Your task to perform on an android device: Is it going to rain this weekend? Image 0: 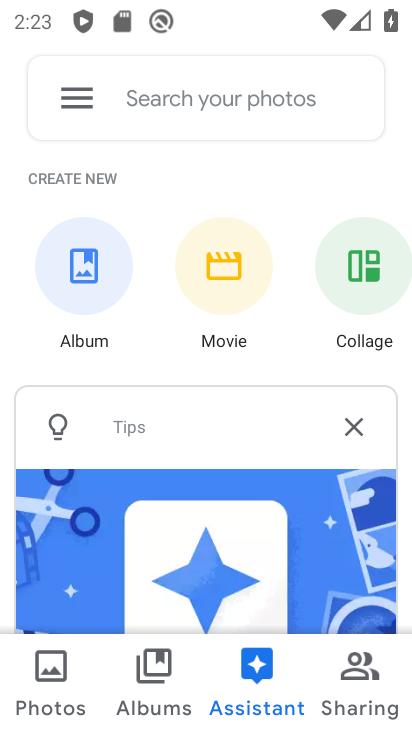
Step 0: press home button
Your task to perform on an android device: Is it going to rain this weekend? Image 1: 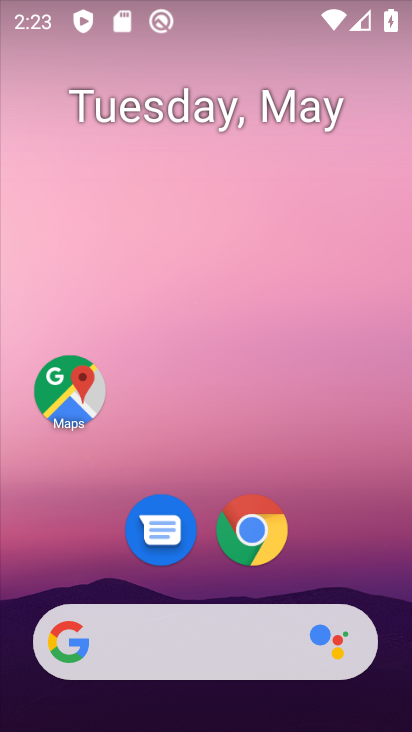
Step 1: click (241, 648)
Your task to perform on an android device: Is it going to rain this weekend? Image 2: 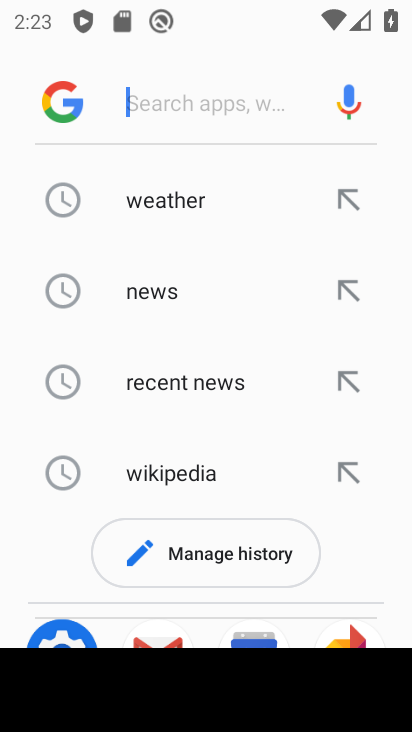
Step 2: click (138, 203)
Your task to perform on an android device: Is it going to rain this weekend? Image 3: 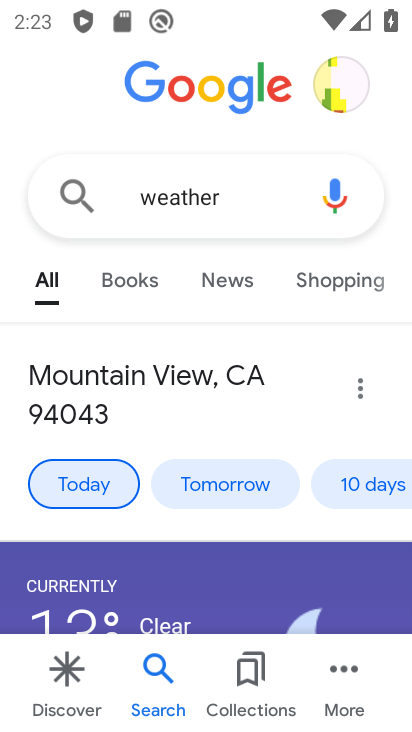
Step 3: task complete